Your task to perform on an android device: delete location history Image 0: 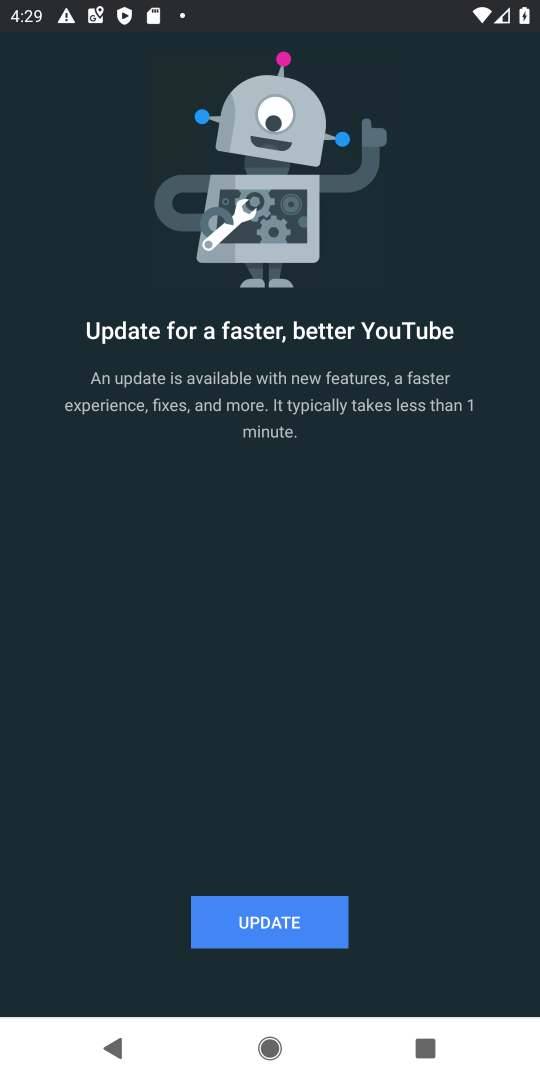
Step 0: press home button
Your task to perform on an android device: delete location history Image 1: 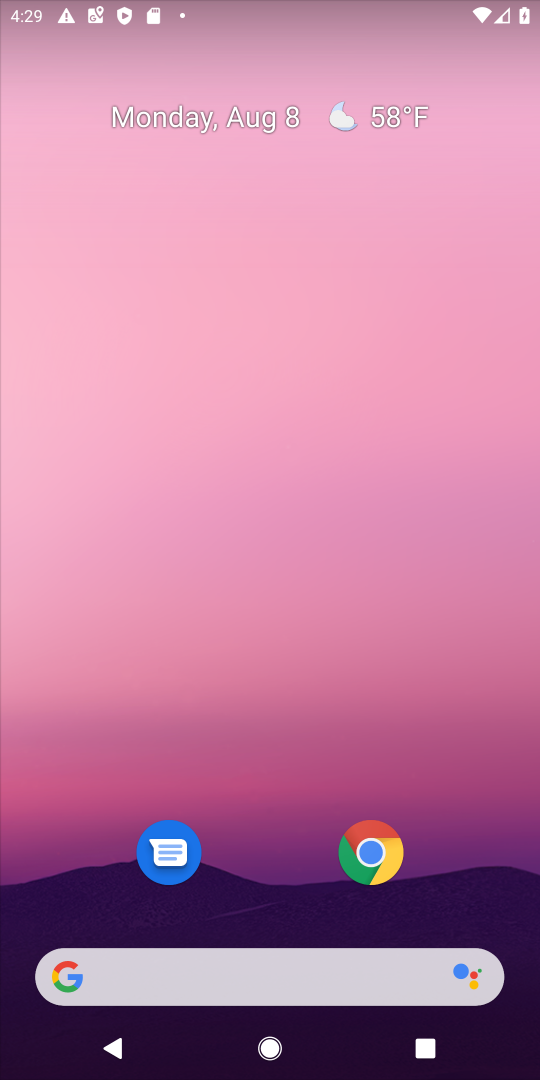
Step 1: drag from (263, 791) to (337, 149)
Your task to perform on an android device: delete location history Image 2: 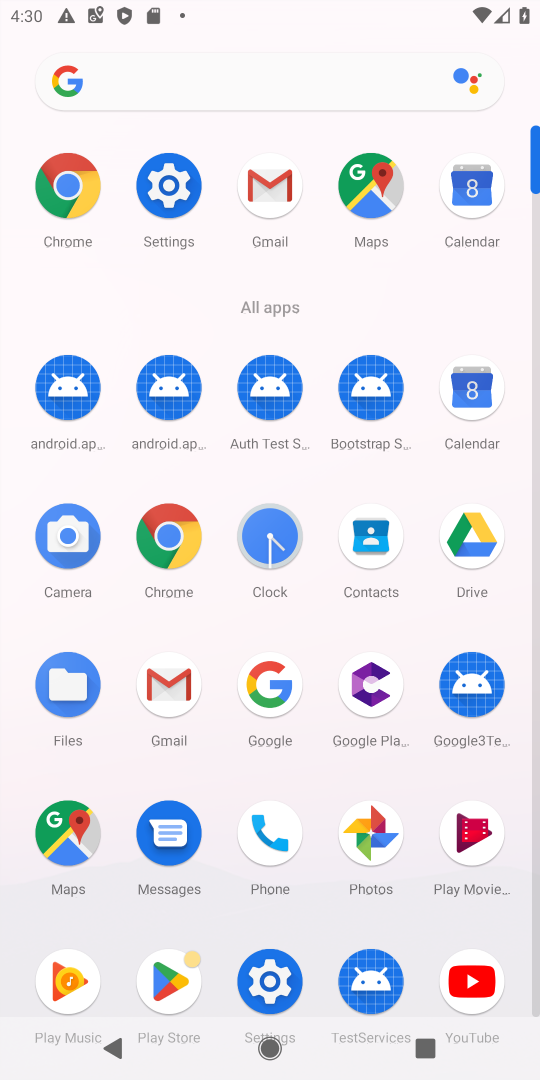
Step 2: click (74, 830)
Your task to perform on an android device: delete location history Image 3: 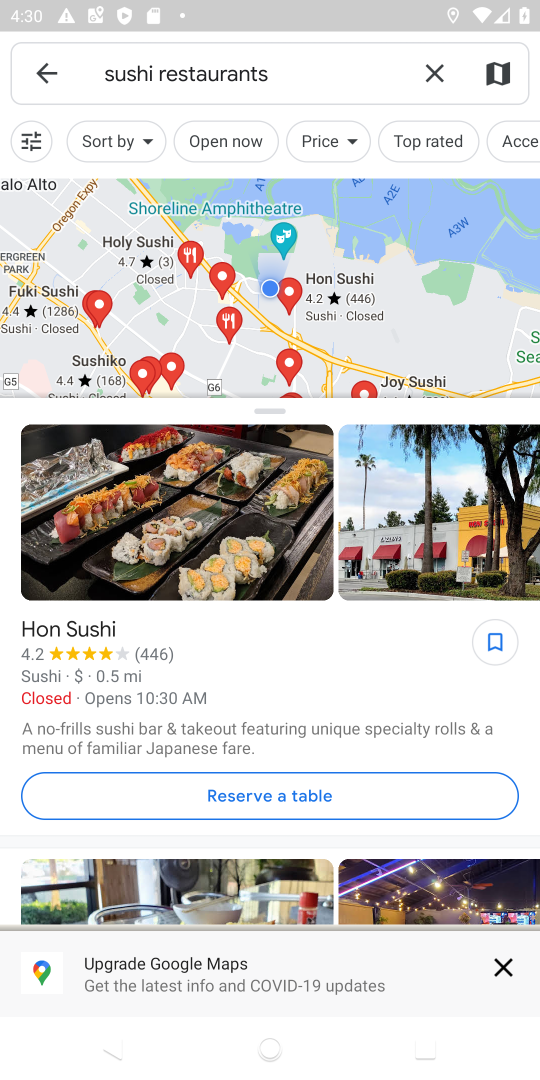
Step 3: click (48, 68)
Your task to perform on an android device: delete location history Image 4: 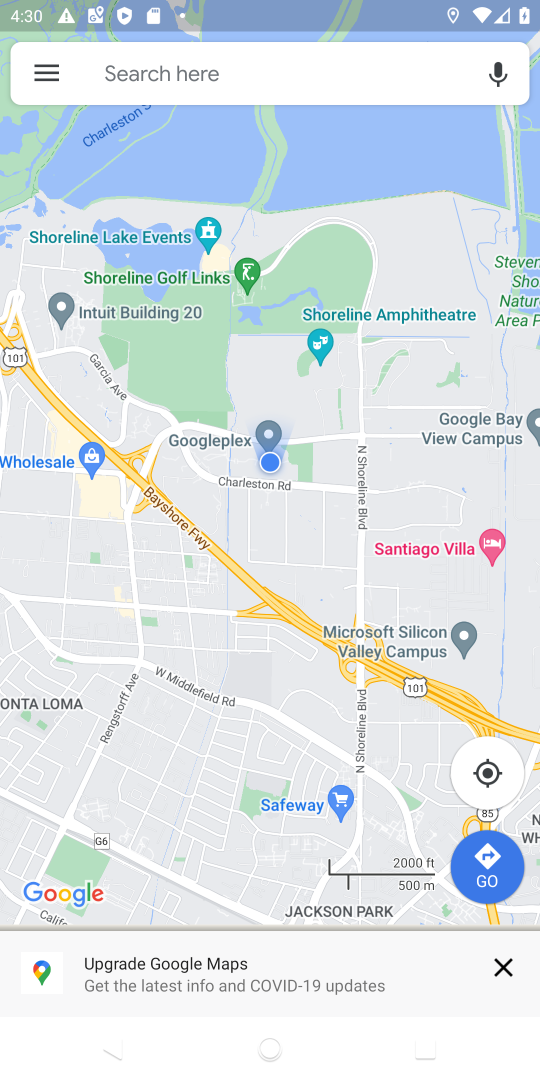
Step 4: click (58, 63)
Your task to perform on an android device: delete location history Image 5: 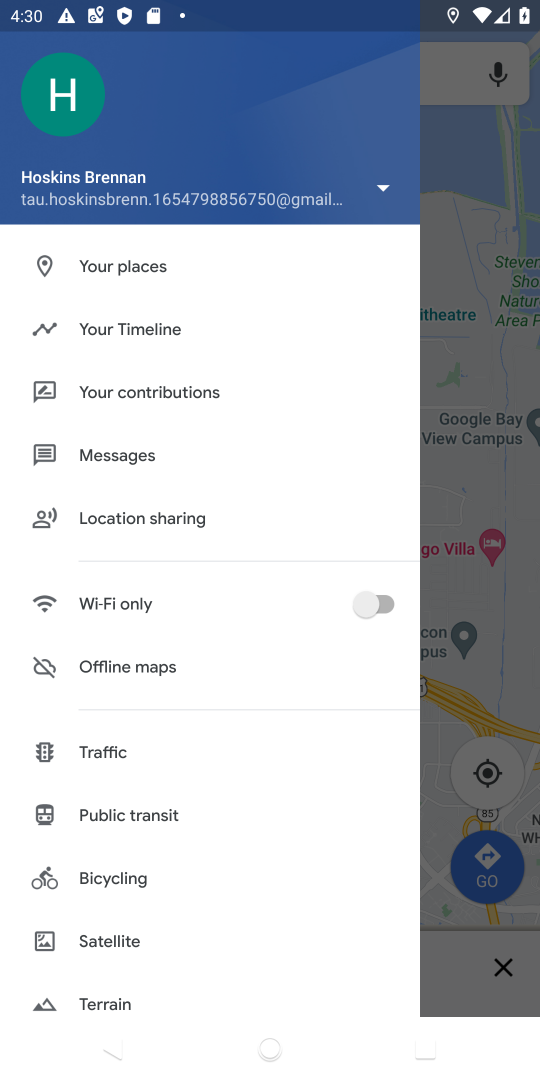
Step 5: drag from (156, 989) to (278, 352)
Your task to perform on an android device: delete location history Image 6: 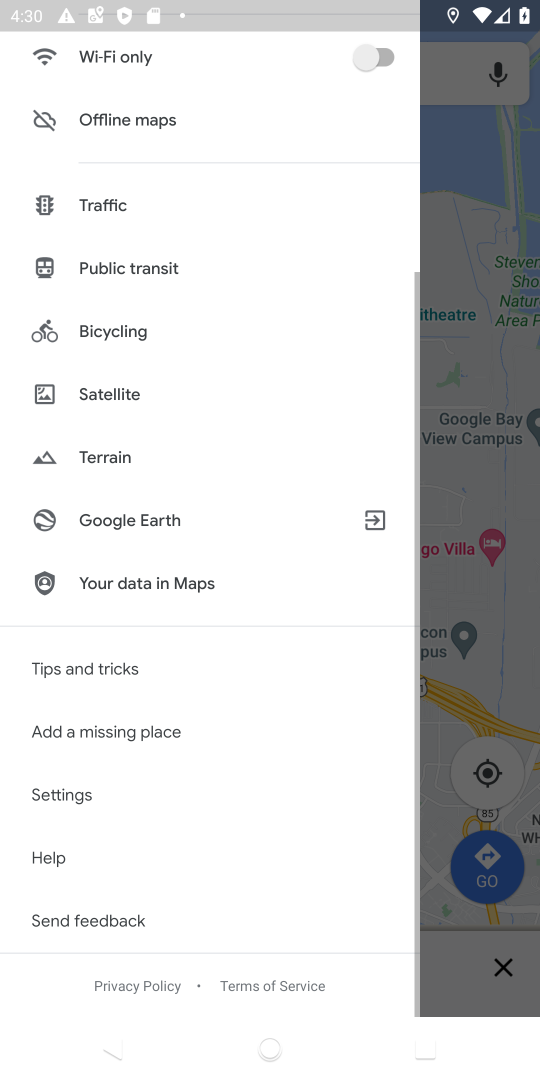
Step 6: click (85, 787)
Your task to perform on an android device: delete location history Image 7: 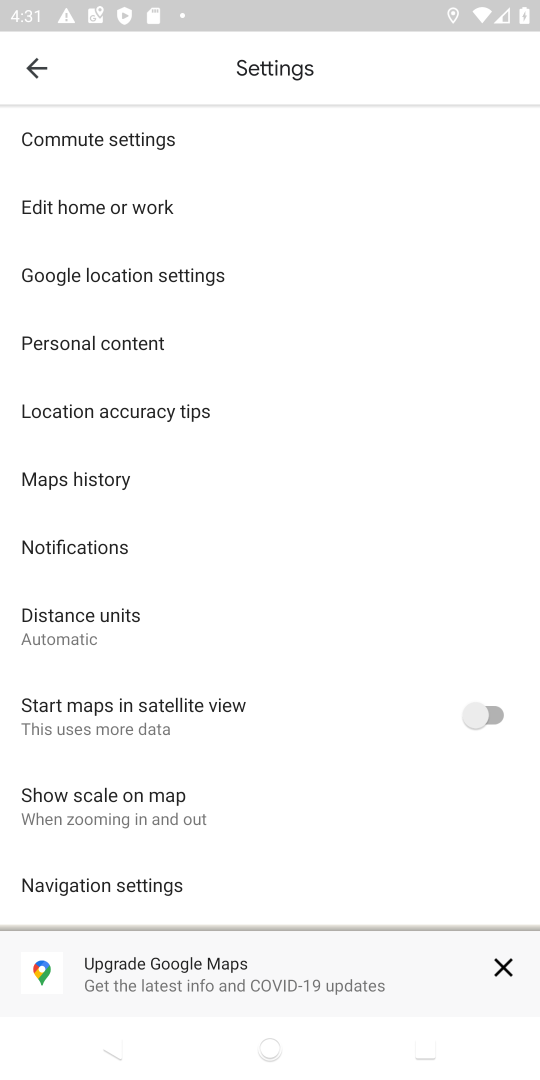
Step 7: drag from (221, 740) to (316, 215)
Your task to perform on an android device: delete location history Image 8: 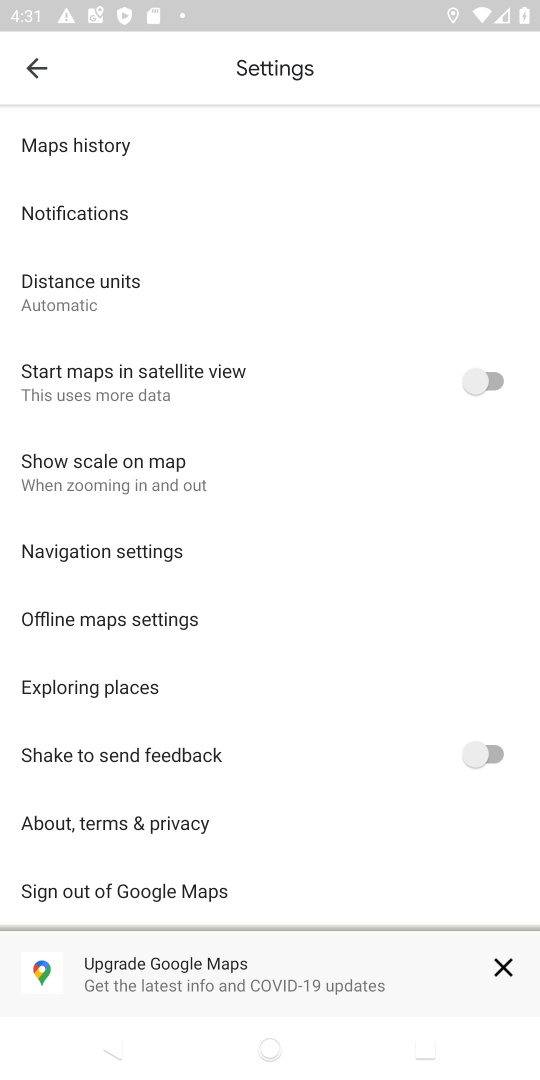
Step 8: click (297, 863)
Your task to perform on an android device: delete location history Image 9: 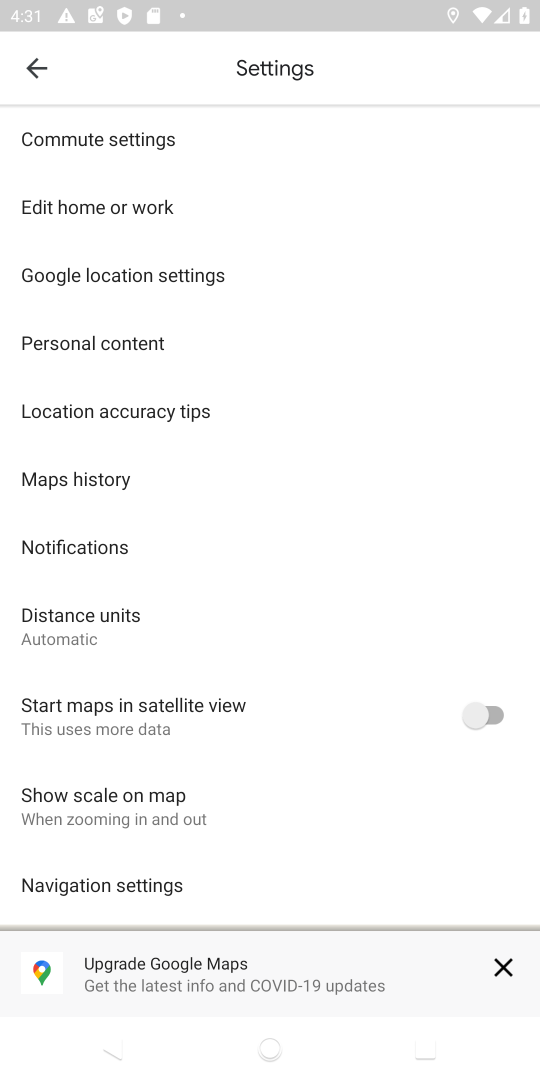
Step 9: drag from (312, 262) to (271, 838)
Your task to perform on an android device: delete location history Image 10: 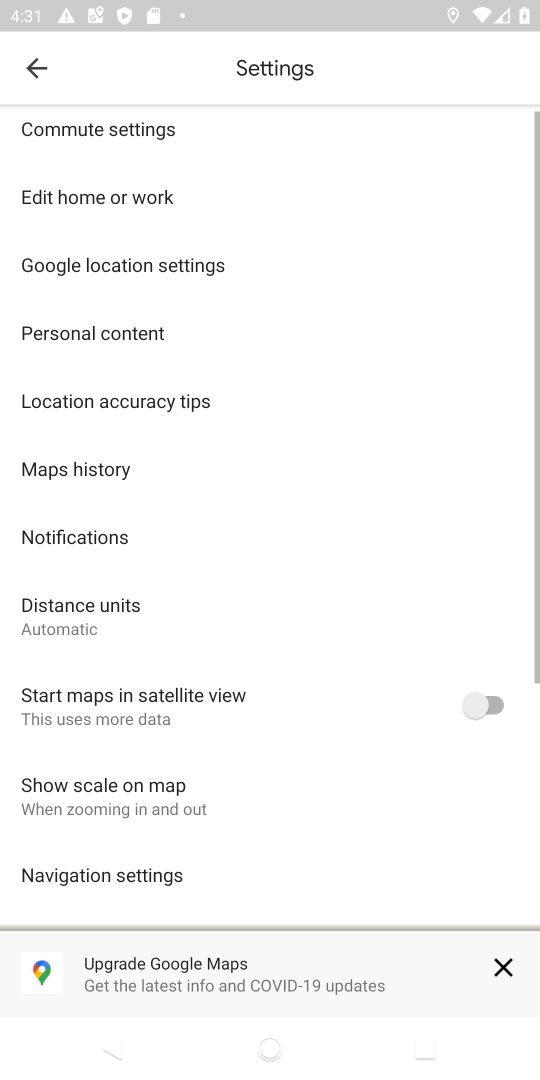
Step 10: click (50, 486)
Your task to perform on an android device: delete location history Image 11: 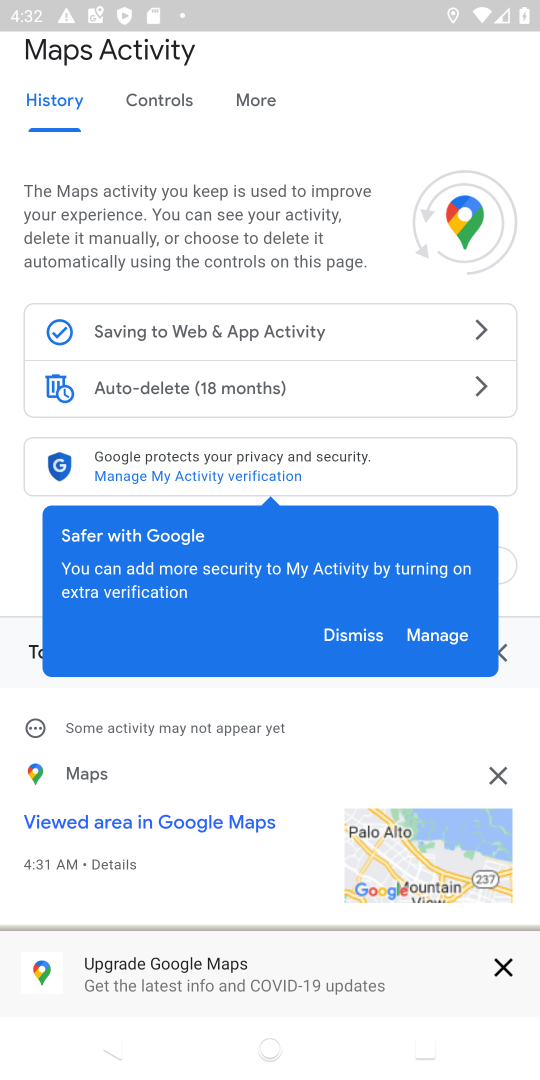
Step 11: click (354, 636)
Your task to perform on an android device: delete location history Image 12: 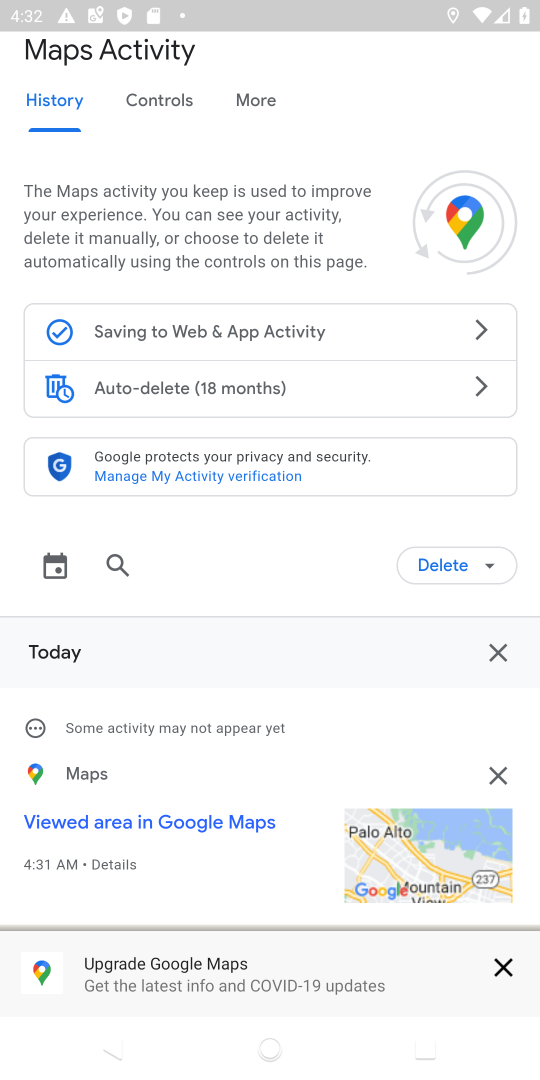
Step 12: click (456, 576)
Your task to perform on an android device: delete location history Image 13: 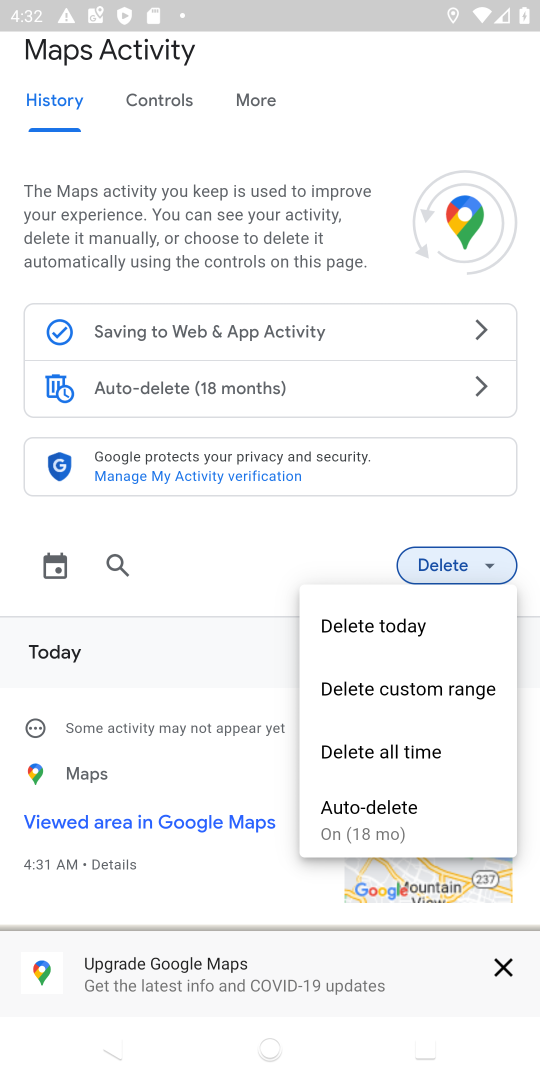
Step 13: click (415, 748)
Your task to perform on an android device: delete location history Image 14: 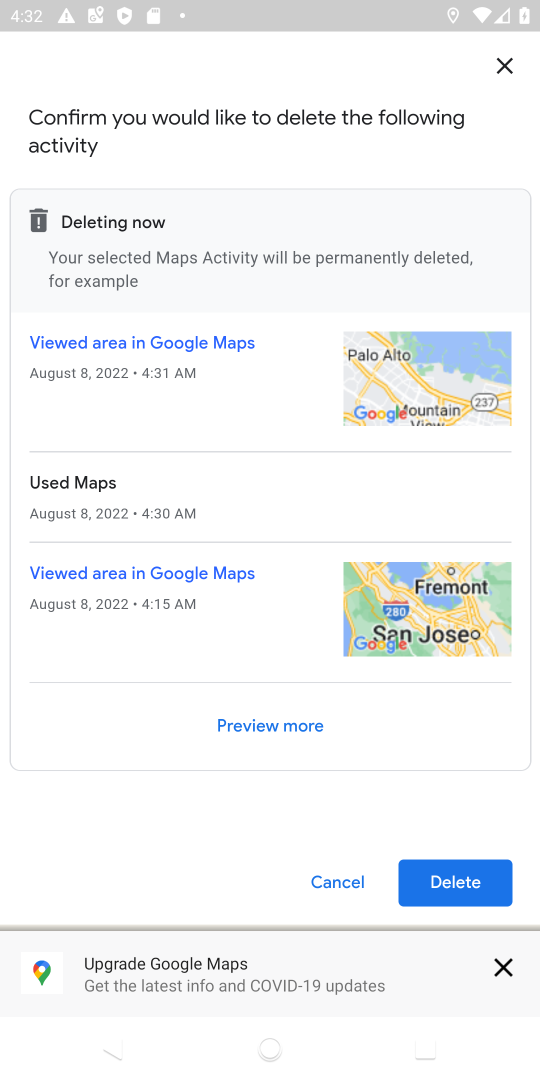
Step 14: click (453, 886)
Your task to perform on an android device: delete location history Image 15: 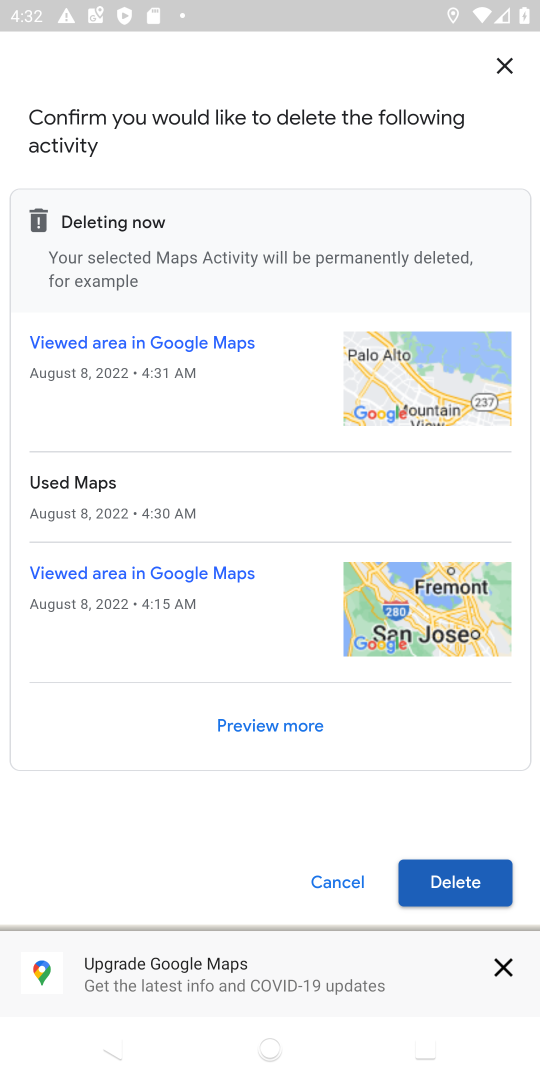
Step 15: click (453, 886)
Your task to perform on an android device: delete location history Image 16: 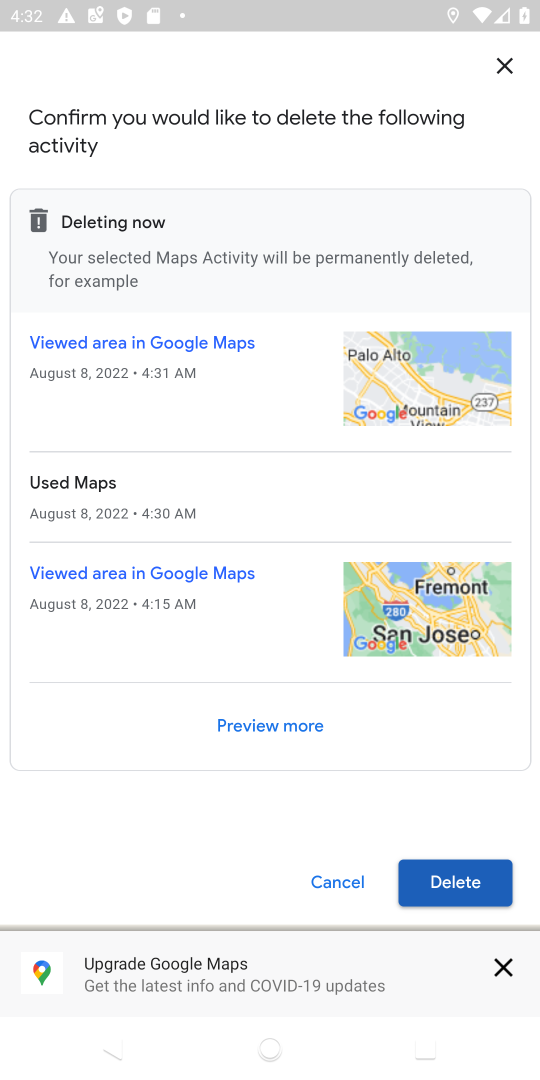
Step 16: click (453, 886)
Your task to perform on an android device: delete location history Image 17: 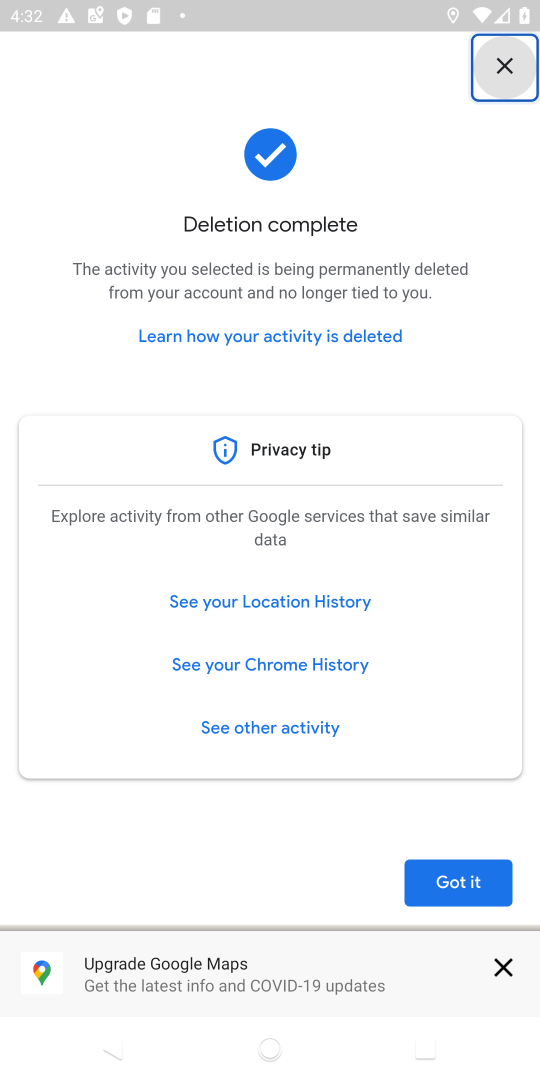
Step 17: task complete